Your task to perform on an android device: Play the last video I watched on Youtube Image 0: 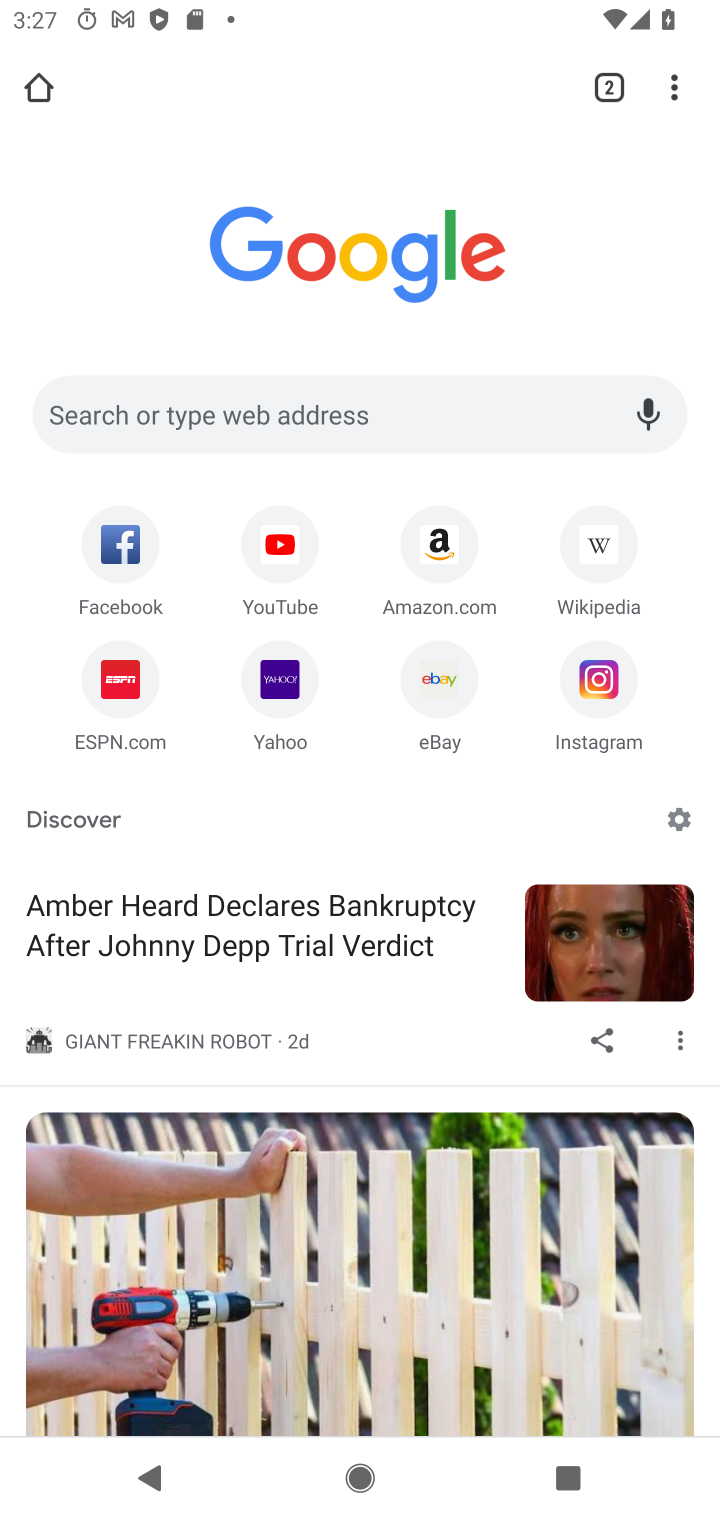
Step 0: press home button
Your task to perform on an android device: Play the last video I watched on Youtube Image 1: 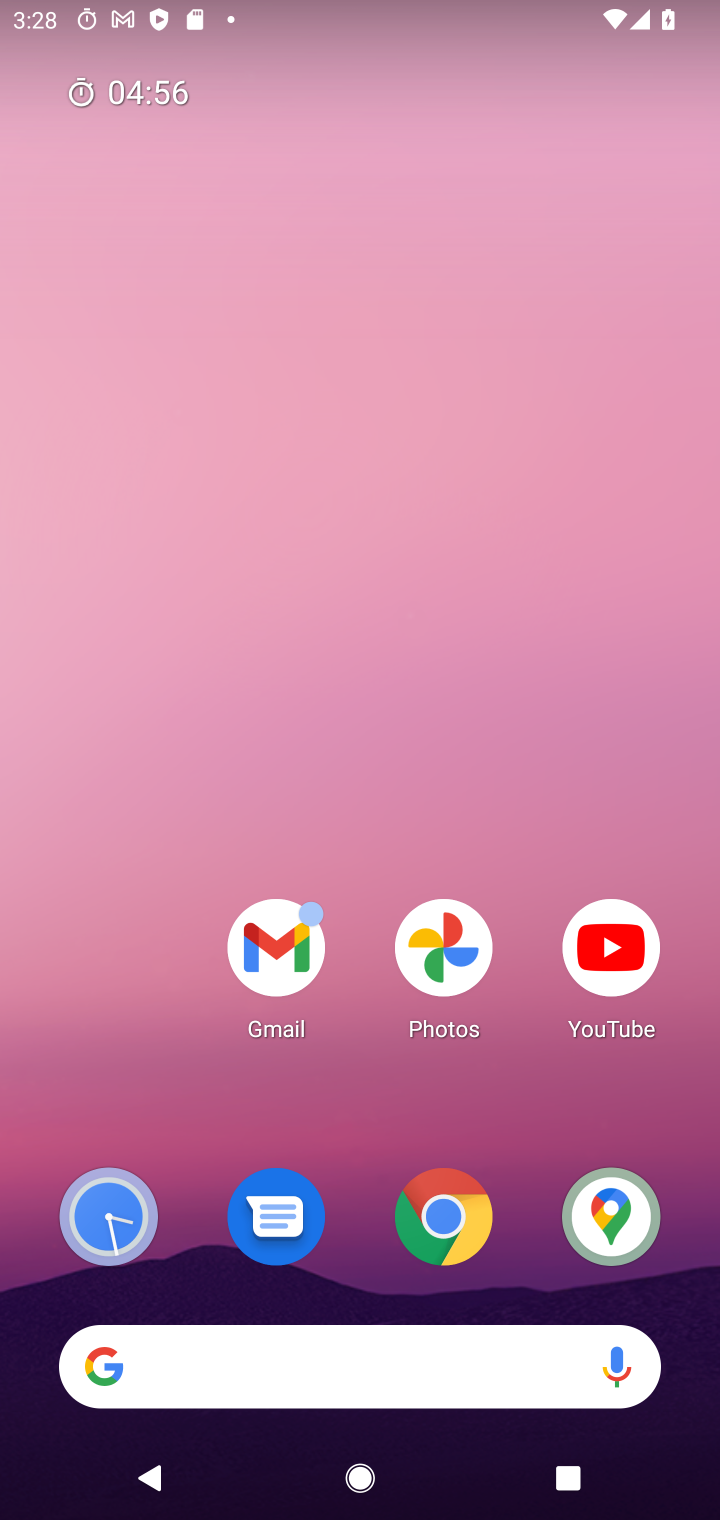
Step 1: drag from (67, 1199) to (638, 309)
Your task to perform on an android device: Play the last video I watched on Youtube Image 2: 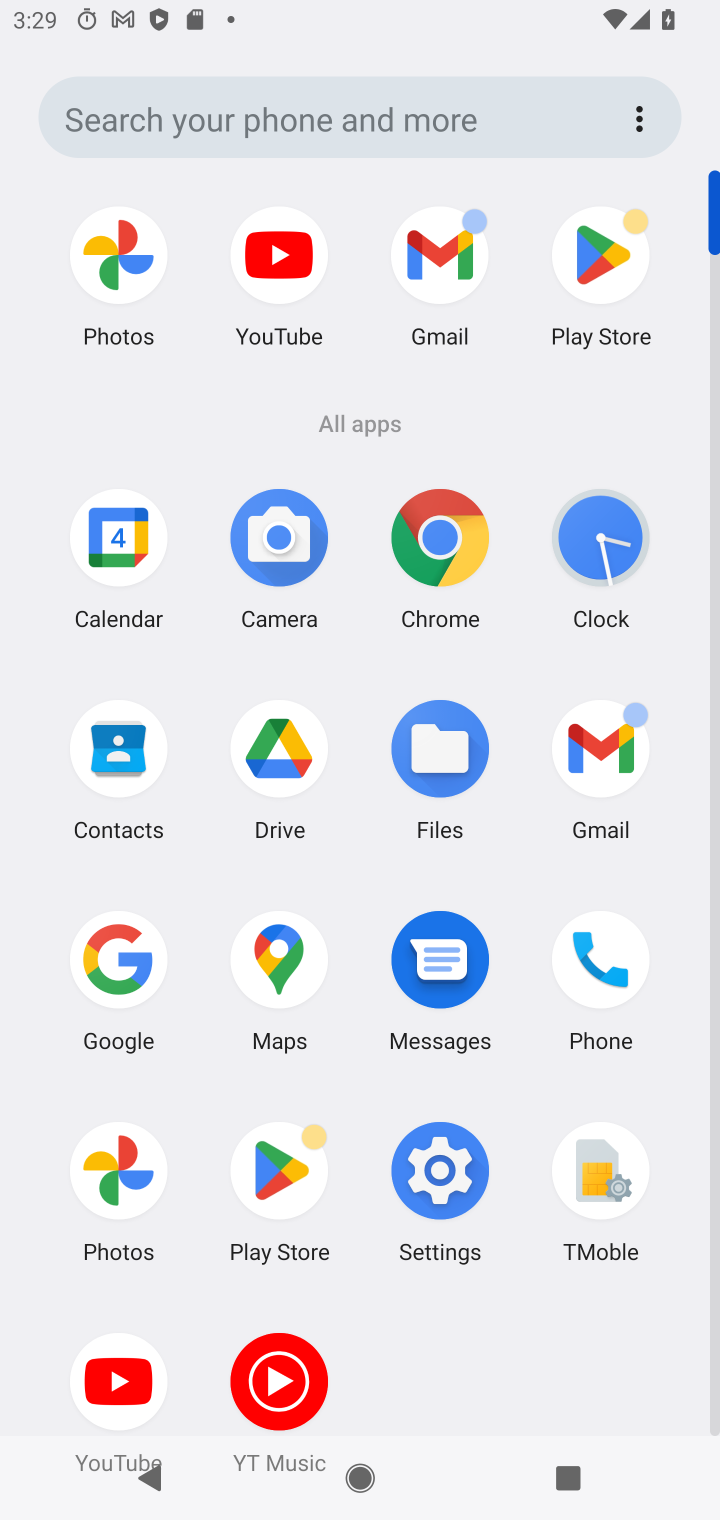
Step 2: click (89, 1390)
Your task to perform on an android device: Play the last video I watched on Youtube Image 3: 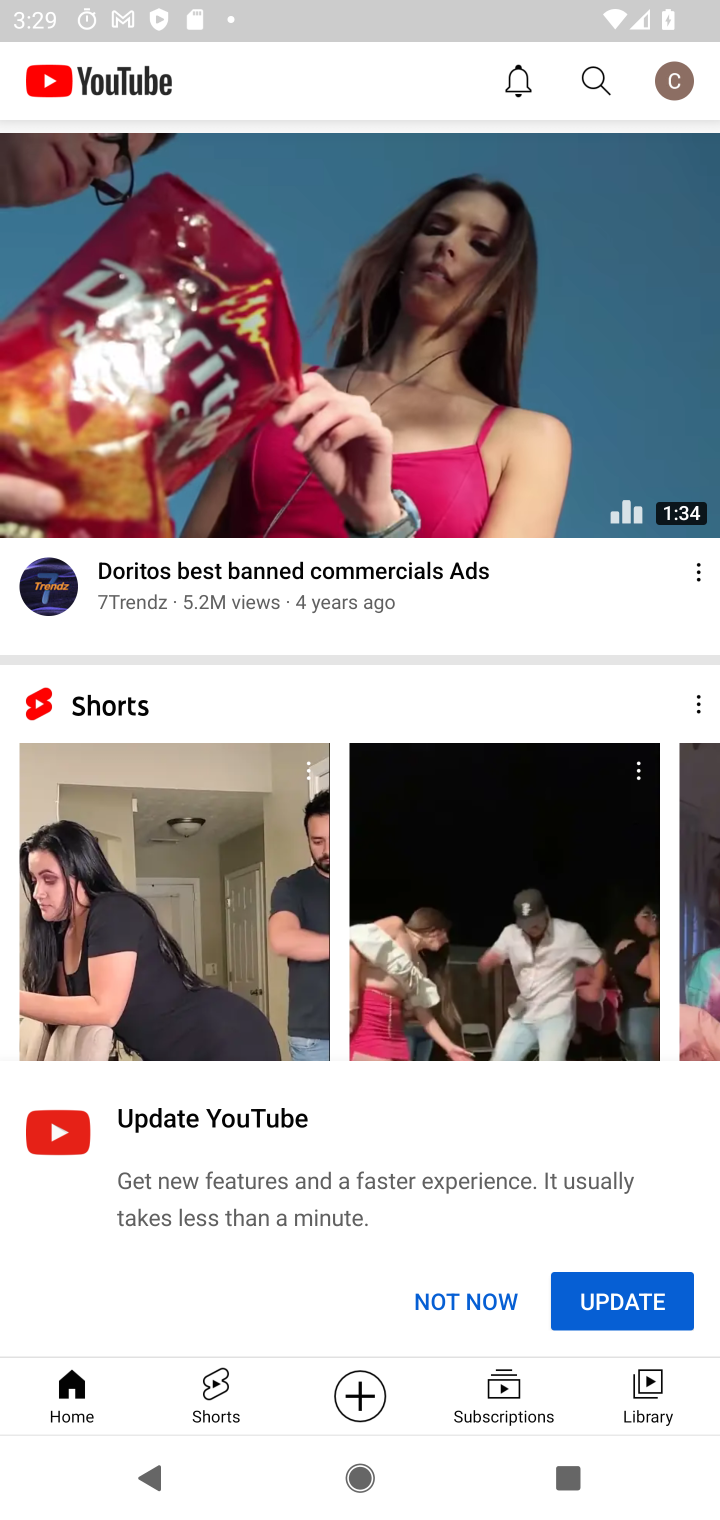
Step 3: click (638, 1408)
Your task to perform on an android device: Play the last video I watched on Youtube Image 4: 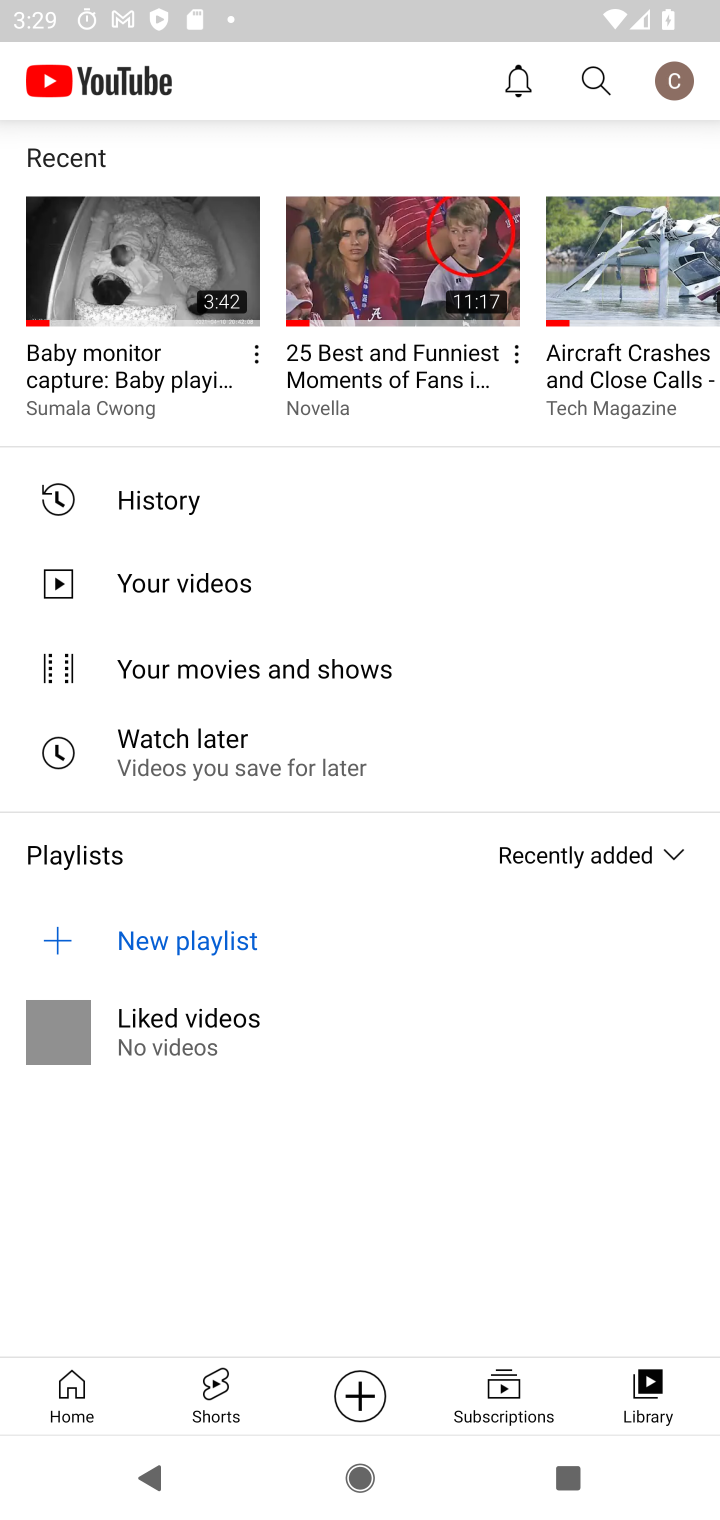
Step 4: task complete